Your task to perform on an android device: turn notification dots on Image 0: 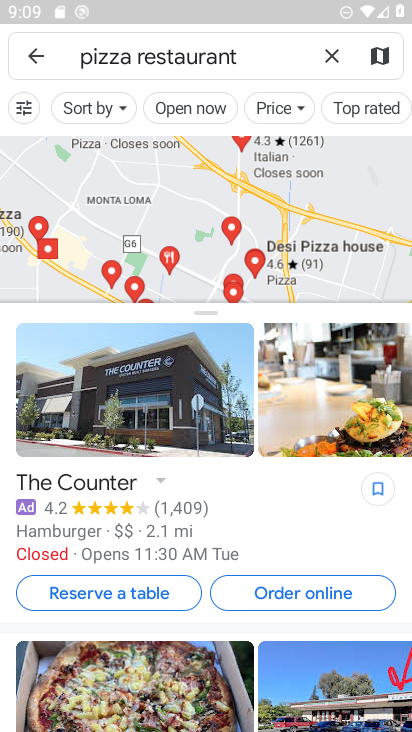
Step 0: press home button
Your task to perform on an android device: turn notification dots on Image 1: 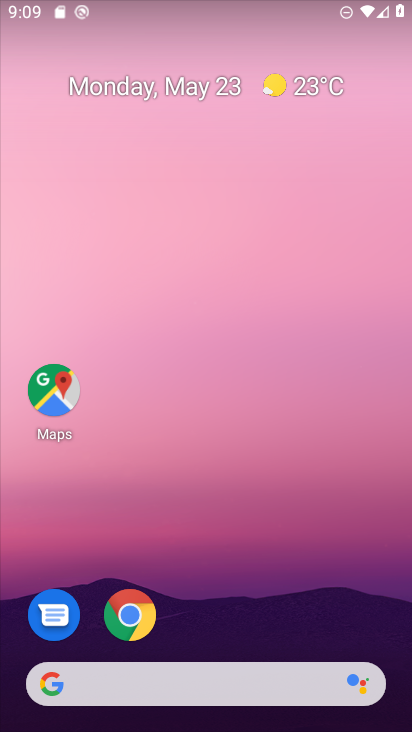
Step 1: drag from (242, 563) to (226, 147)
Your task to perform on an android device: turn notification dots on Image 2: 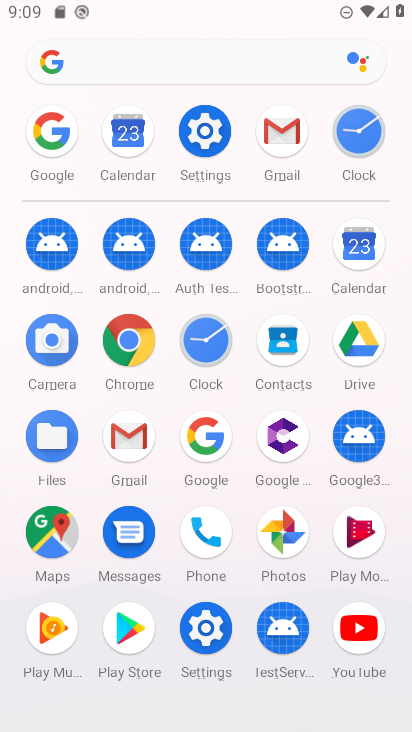
Step 2: click (204, 128)
Your task to perform on an android device: turn notification dots on Image 3: 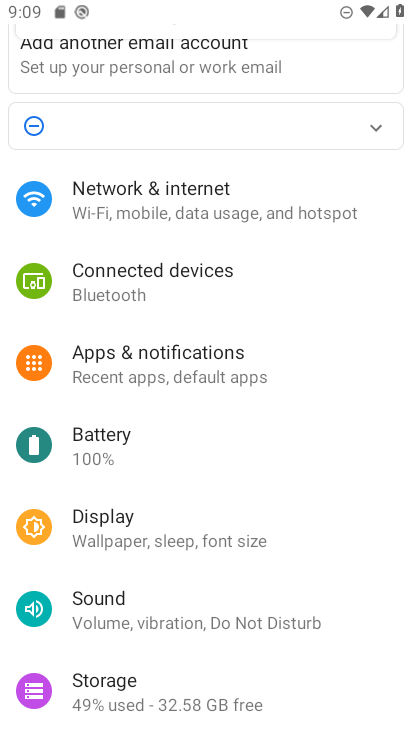
Step 3: click (163, 366)
Your task to perform on an android device: turn notification dots on Image 4: 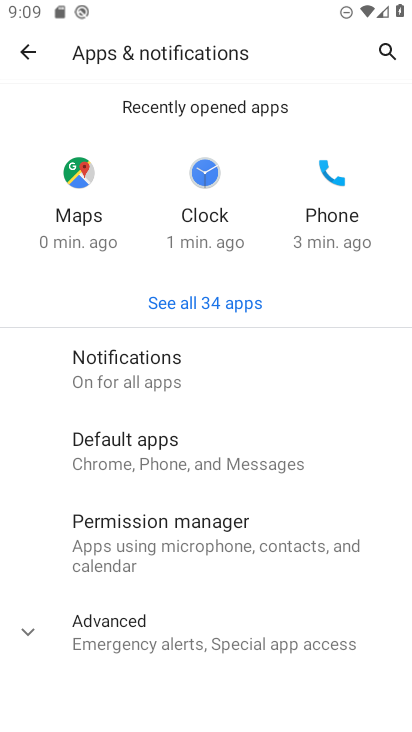
Step 4: click (102, 373)
Your task to perform on an android device: turn notification dots on Image 5: 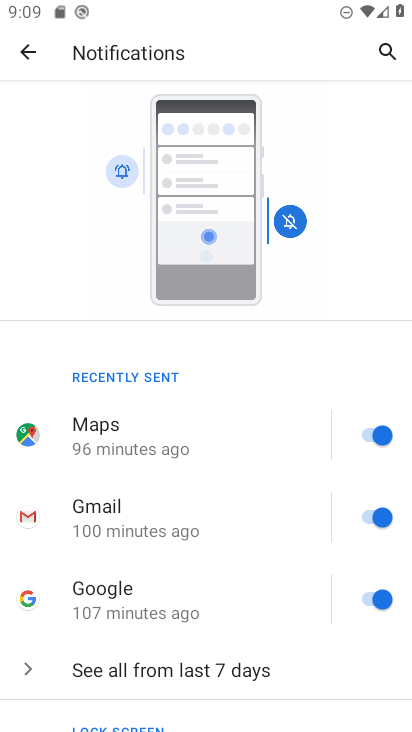
Step 5: drag from (172, 558) to (246, 463)
Your task to perform on an android device: turn notification dots on Image 6: 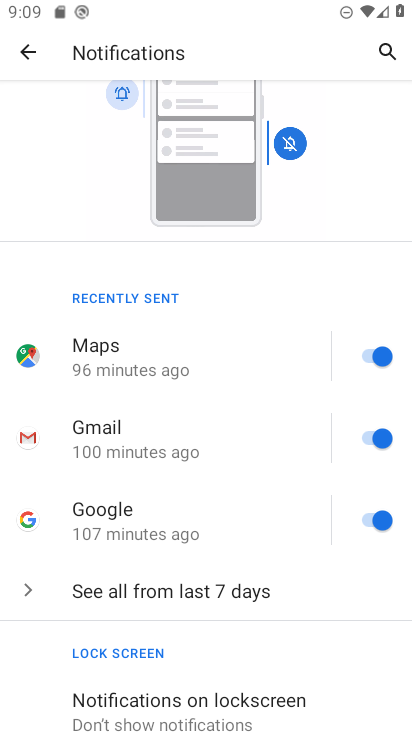
Step 6: drag from (186, 655) to (279, 477)
Your task to perform on an android device: turn notification dots on Image 7: 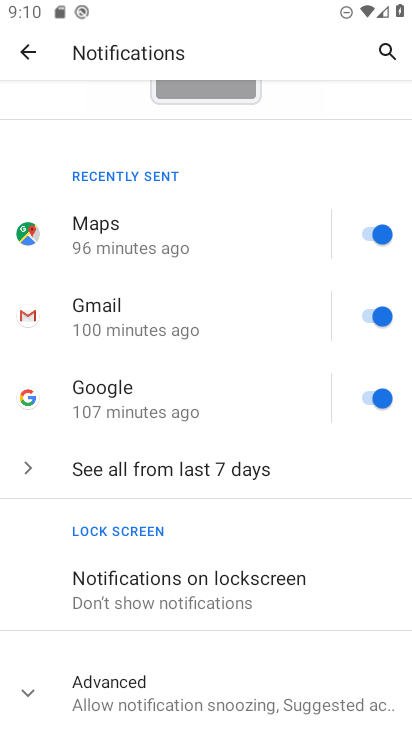
Step 7: click (161, 698)
Your task to perform on an android device: turn notification dots on Image 8: 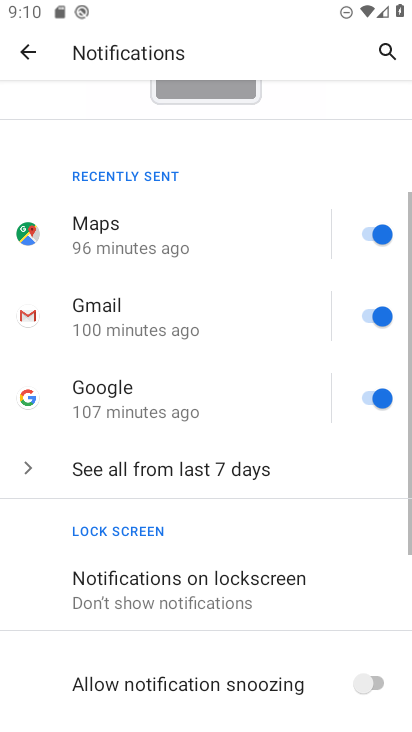
Step 8: drag from (161, 698) to (216, 548)
Your task to perform on an android device: turn notification dots on Image 9: 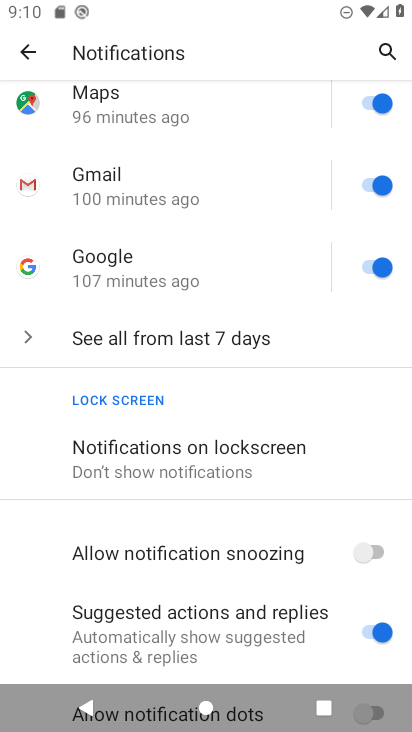
Step 9: drag from (233, 660) to (329, 481)
Your task to perform on an android device: turn notification dots on Image 10: 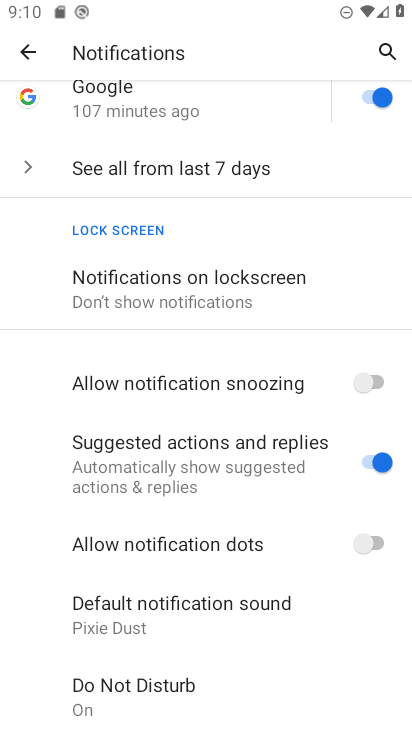
Step 10: click (365, 545)
Your task to perform on an android device: turn notification dots on Image 11: 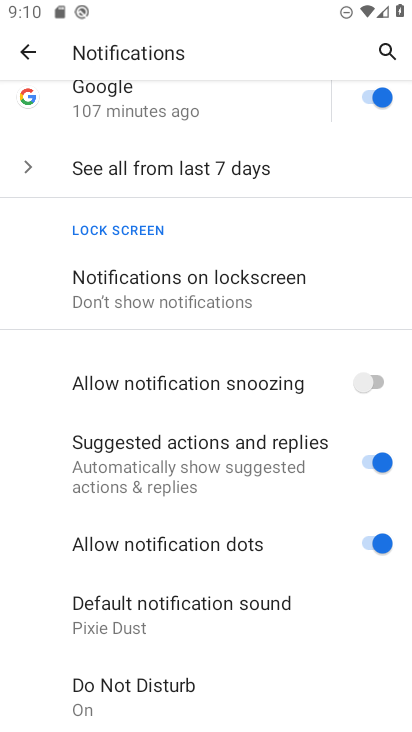
Step 11: task complete